Your task to perform on an android device: open chrome privacy settings Image 0: 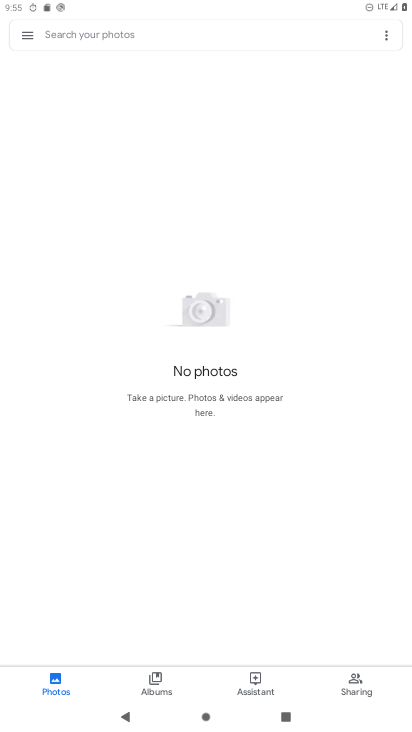
Step 0: press home button
Your task to perform on an android device: open chrome privacy settings Image 1: 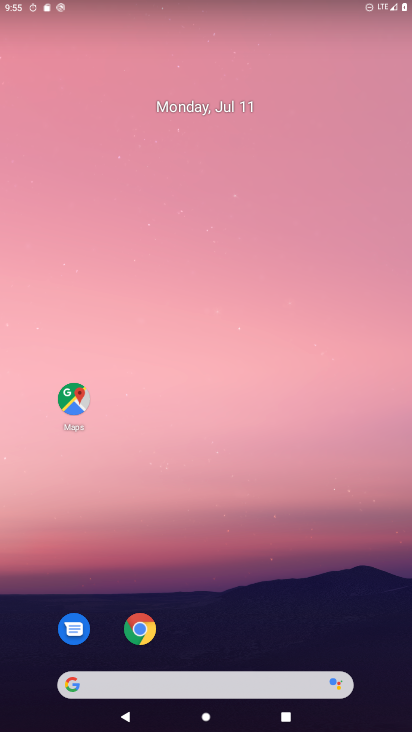
Step 1: click (137, 636)
Your task to perform on an android device: open chrome privacy settings Image 2: 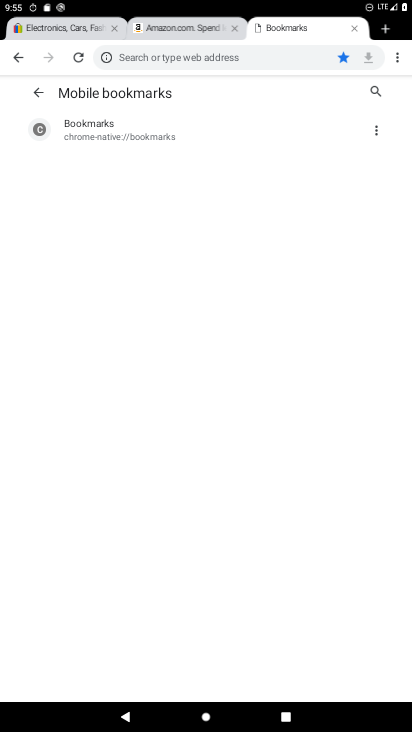
Step 2: click (397, 62)
Your task to perform on an android device: open chrome privacy settings Image 3: 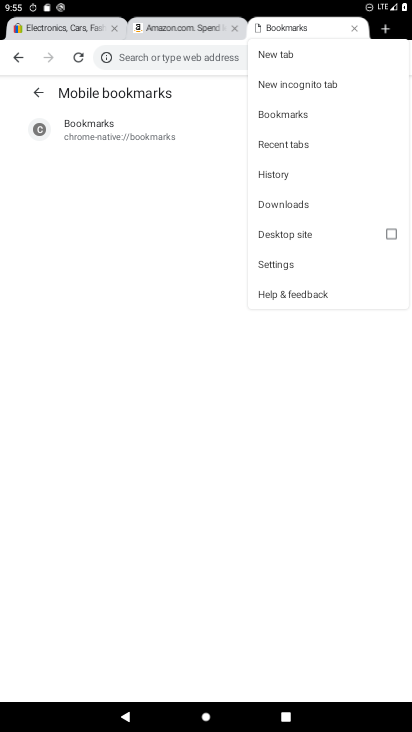
Step 3: click (287, 275)
Your task to perform on an android device: open chrome privacy settings Image 4: 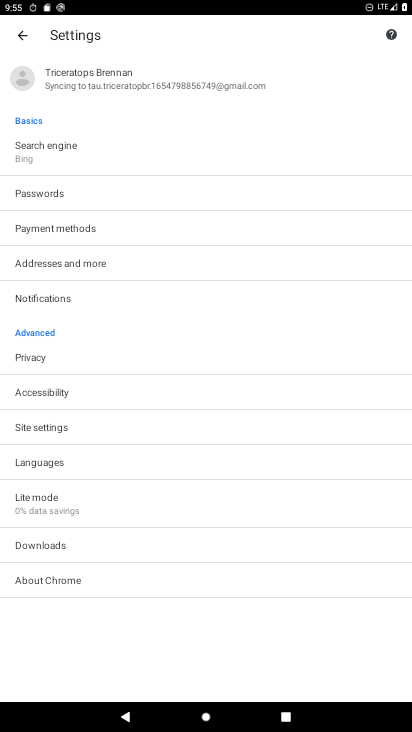
Step 4: click (63, 357)
Your task to perform on an android device: open chrome privacy settings Image 5: 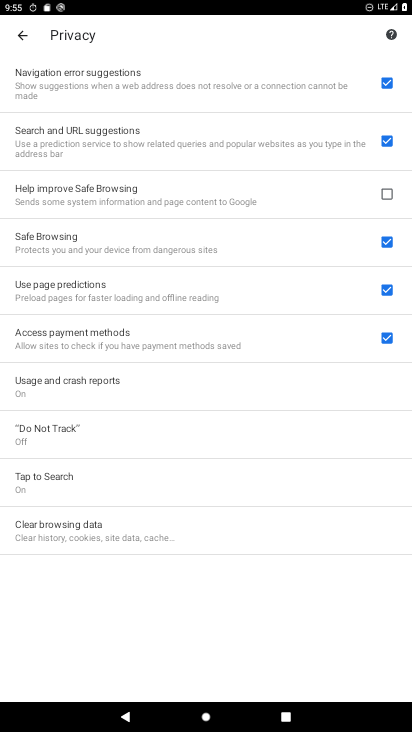
Step 5: task complete